Your task to perform on an android device: find snoozed emails in the gmail app Image 0: 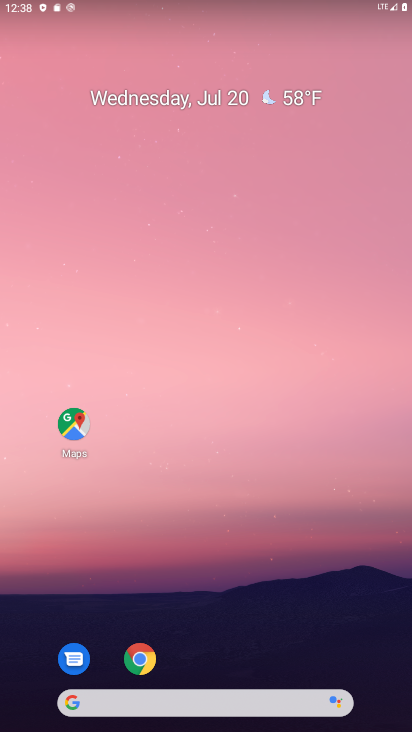
Step 0: press home button
Your task to perform on an android device: find snoozed emails in the gmail app Image 1: 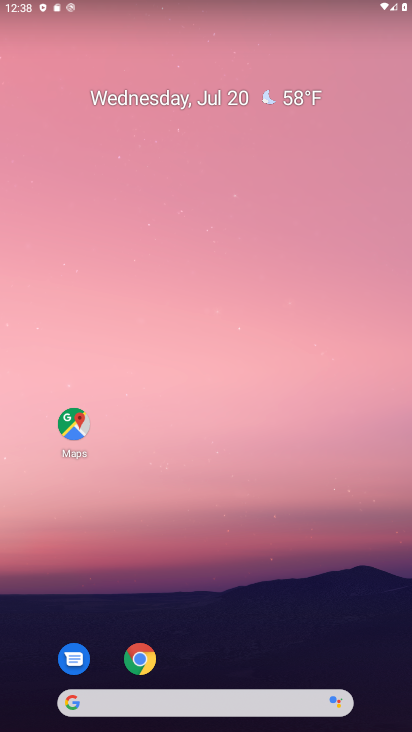
Step 1: drag from (237, 664) to (269, 0)
Your task to perform on an android device: find snoozed emails in the gmail app Image 2: 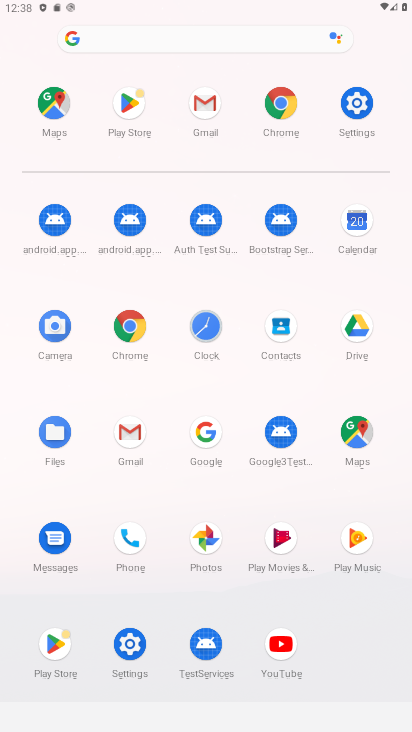
Step 2: click (127, 424)
Your task to perform on an android device: find snoozed emails in the gmail app Image 3: 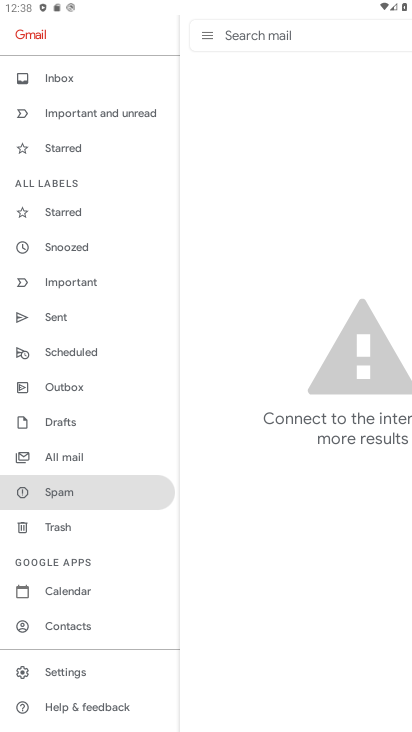
Step 3: click (84, 206)
Your task to perform on an android device: find snoozed emails in the gmail app Image 4: 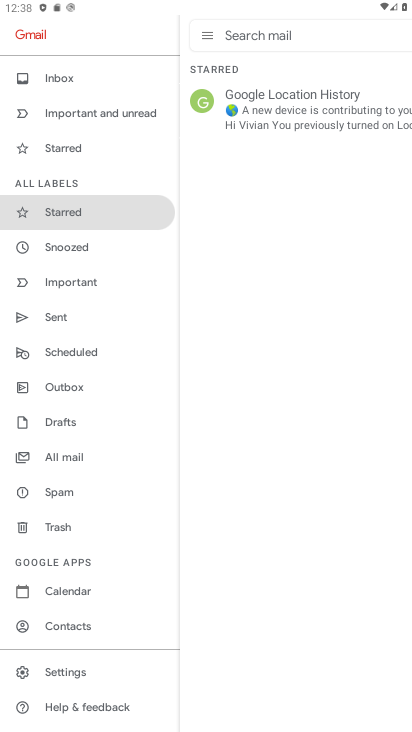
Step 4: task complete